Your task to perform on an android device: Go to Google Image 0: 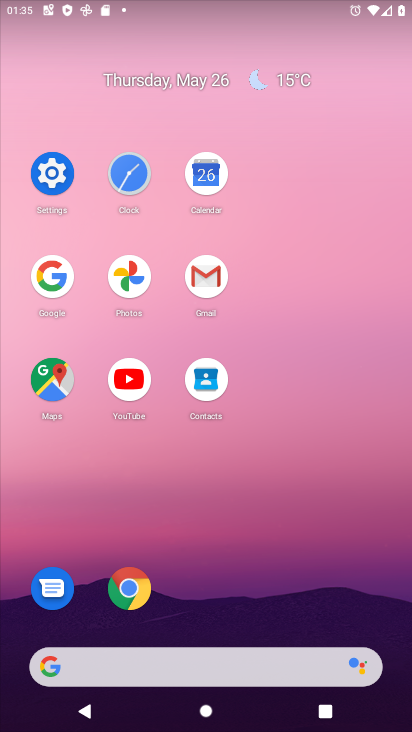
Step 0: click (66, 275)
Your task to perform on an android device: Go to Google Image 1: 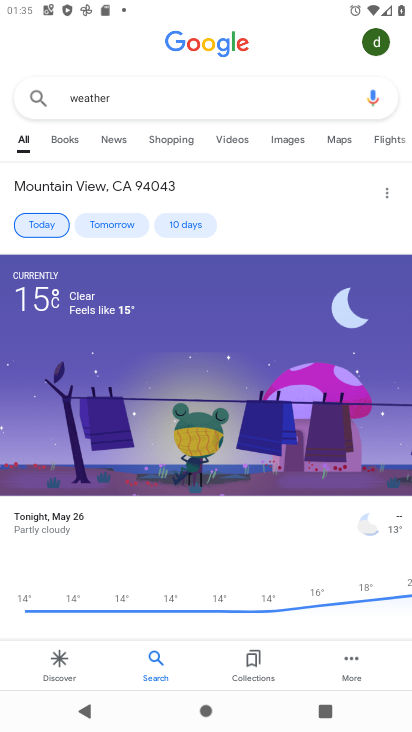
Step 1: task complete